Your task to perform on an android device: What's the weather going to be tomorrow? Image 0: 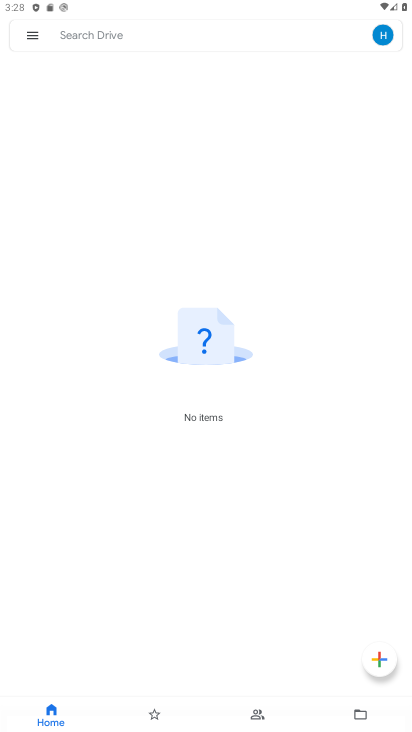
Step 0: press back button
Your task to perform on an android device: What's the weather going to be tomorrow? Image 1: 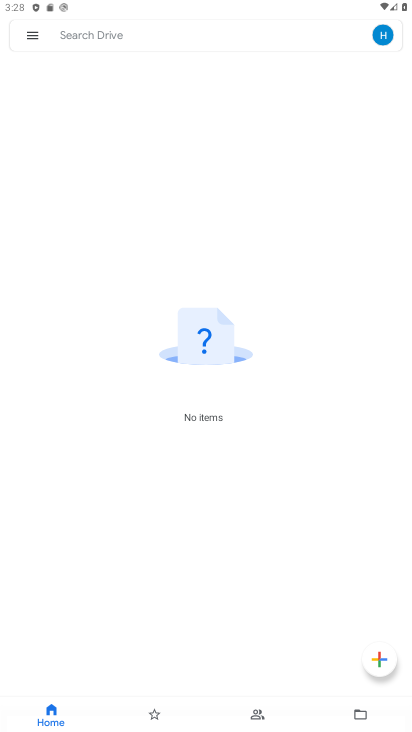
Step 1: press back button
Your task to perform on an android device: What's the weather going to be tomorrow? Image 2: 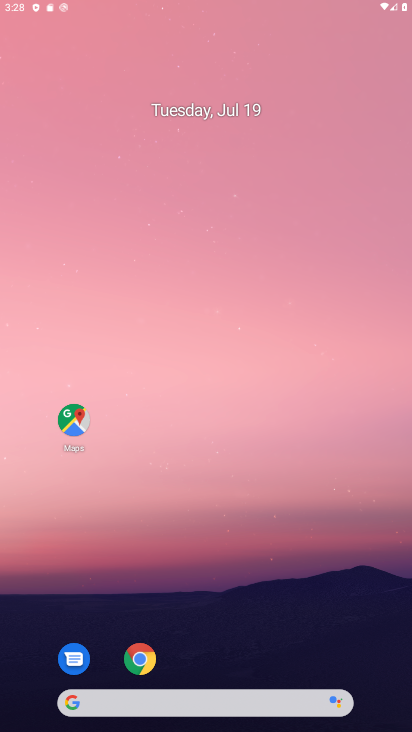
Step 2: press back button
Your task to perform on an android device: What's the weather going to be tomorrow? Image 3: 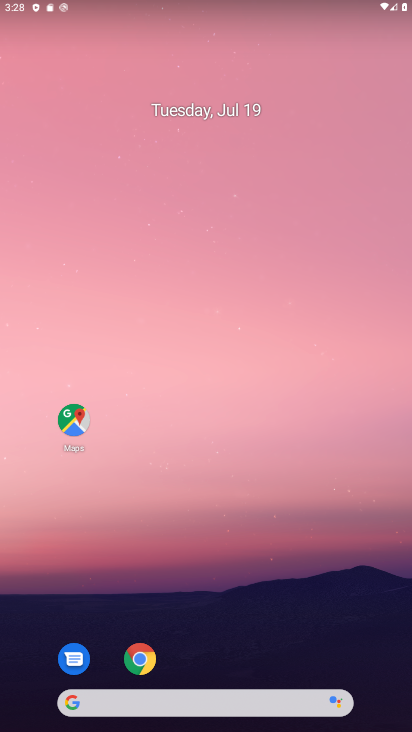
Step 3: drag from (304, 477) to (174, 118)
Your task to perform on an android device: What's the weather going to be tomorrow? Image 4: 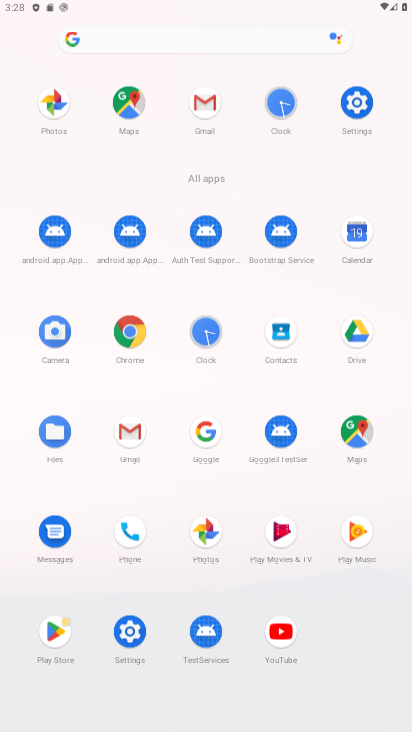
Step 4: drag from (248, 408) to (173, 162)
Your task to perform on an android device: What's the weather going to be tomorrow? Image 5: 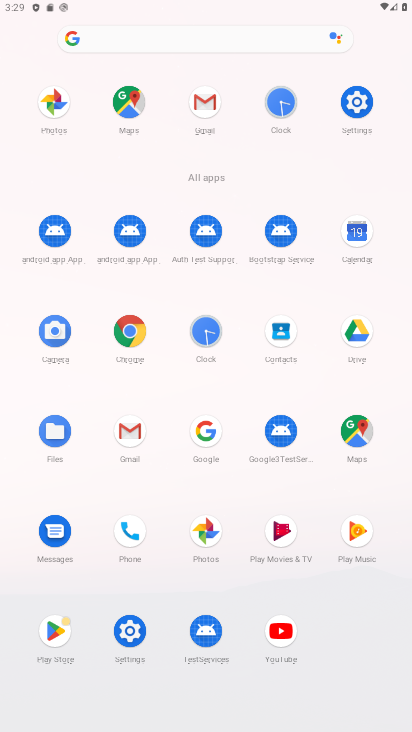
Step 5: click (125, 345)
Your task to perform on an android device: What's the weather going to be tomorrow? Image 6: 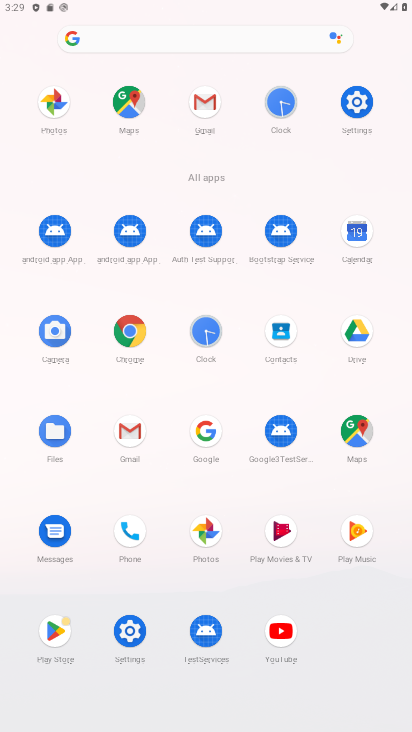
Step 6: click (126, 346)
Your task to perform on an android device: What's the weather going to be tomorrow? Image 7: 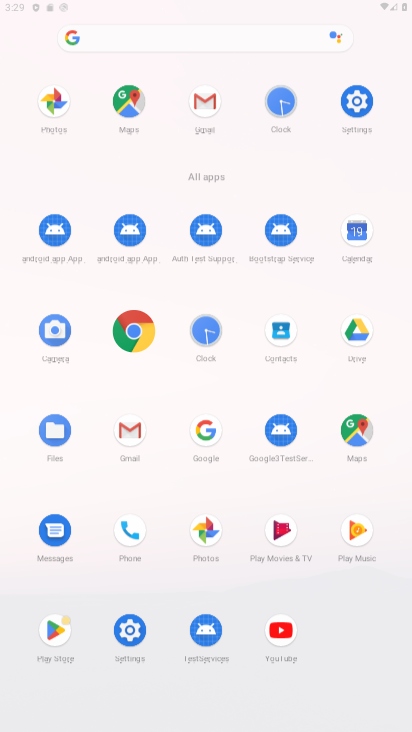
Step 7: click (133, 328)
Your task to perform on an android device: What's the weather going to be tomorrow? Image 8: 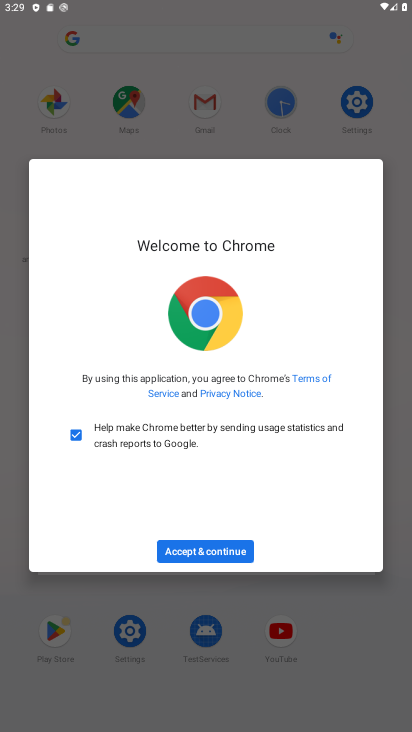
Step 8: click (180, 539)
Your task to perform on an android device: What's the weather going to be tomorrow? Image 9: 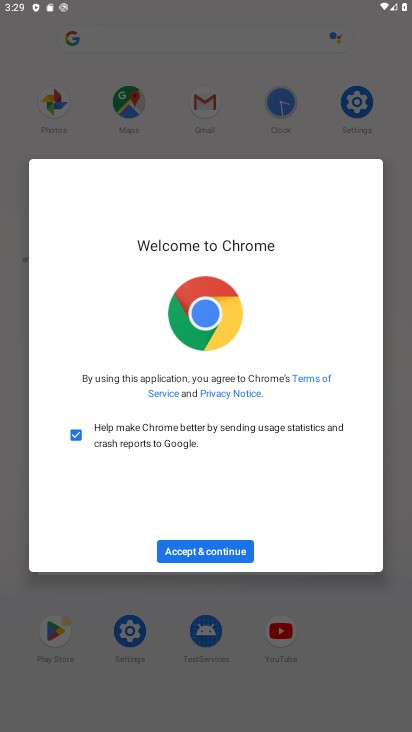
Step 9: click (212, 557)
Your task to perform on an android device: What's the weather going to be tomorrow? Image 10: 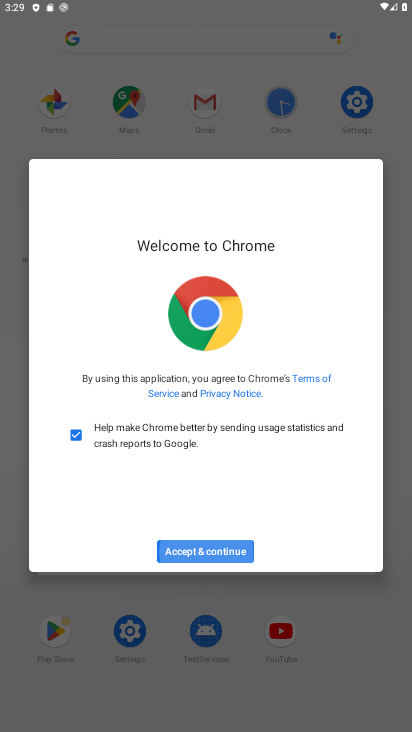
Step 10: click (212, 556)
Your task to perform on an android device: What's the weather going to be tomorrow? Image 11: 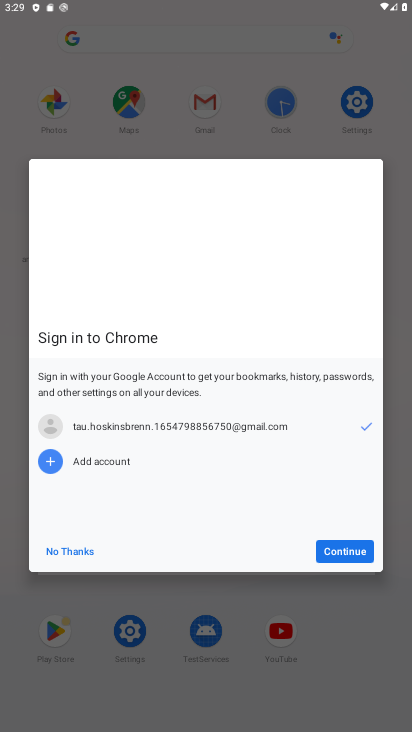
Step 11: click (215, 559)
Your task to perform on an android device: What's the weather going to be tomorrow? Image 12: 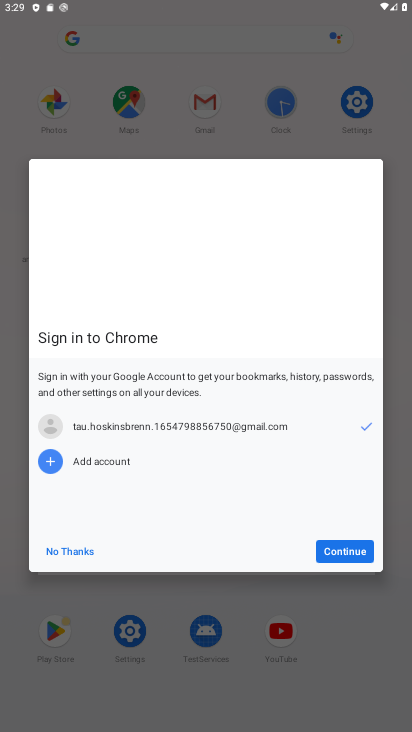
Step 12: click (215, 559)
Your task to perform on an android device: What's the weather going to be tomorrow? Image 13: 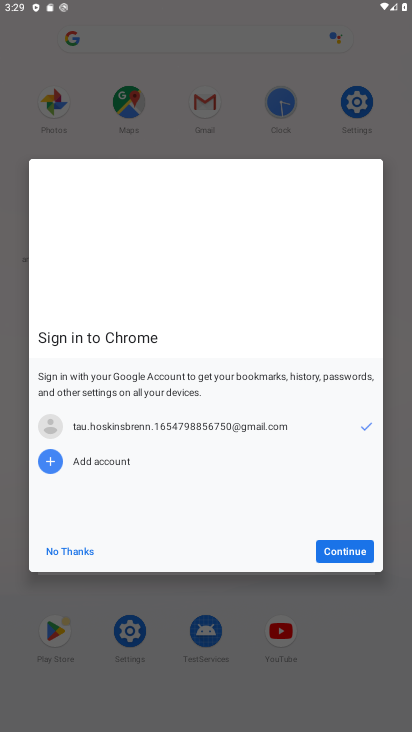
Step 13: click (215, 559)
Your task to perform on an android device: What's the weather going to be tomorrow? Image 14: 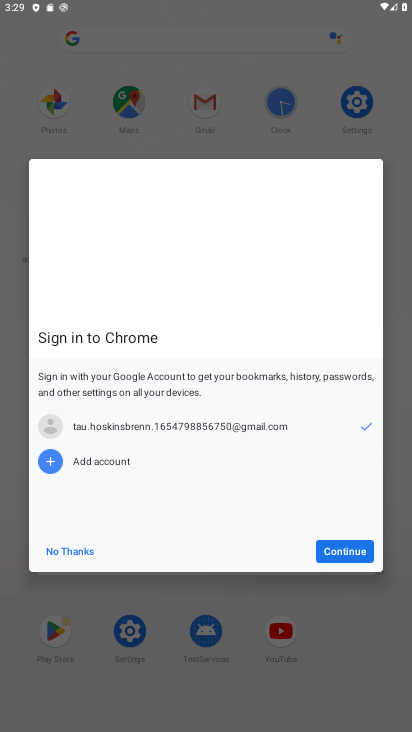
Step 14: click (348, 561)
Your task to perform on an android device: What's the weather going to be tomorrow? Image 15: 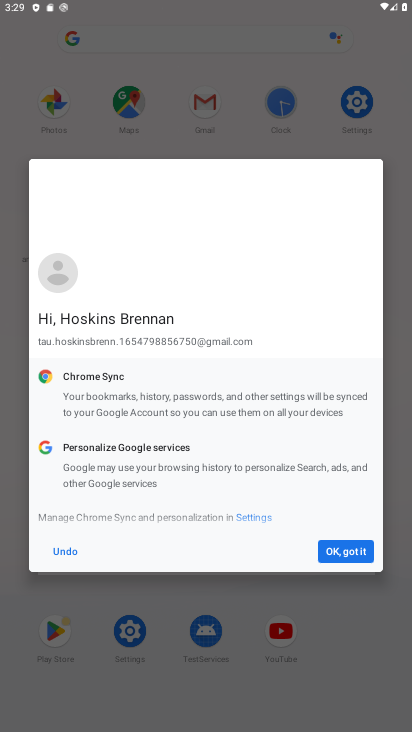
Step 15: click (352, 553)
Your task to perform on an android device: What's the weather going to be tomorrow? Image 16: 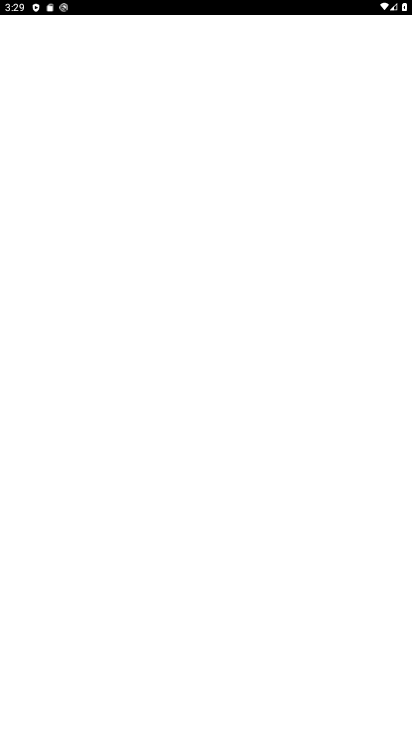
Step 16: click (347, 557)
Your task to perform on an android device: What's the weather going to be tomorrow? Image 17: 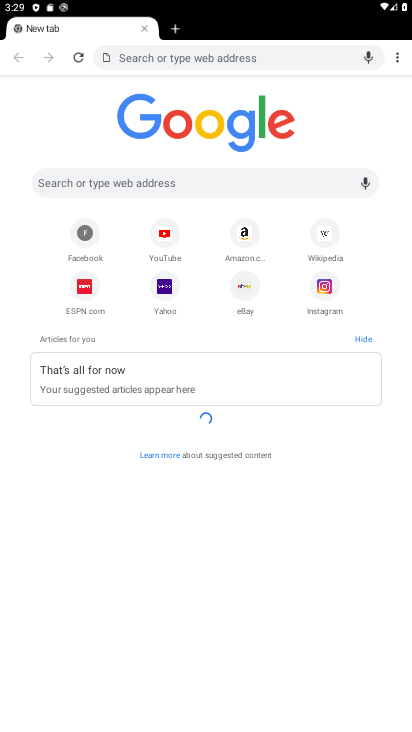
Step 17: click (80, 183)
Your task to perform on an android device: What's the weather going to be tomorrow? Image 18: 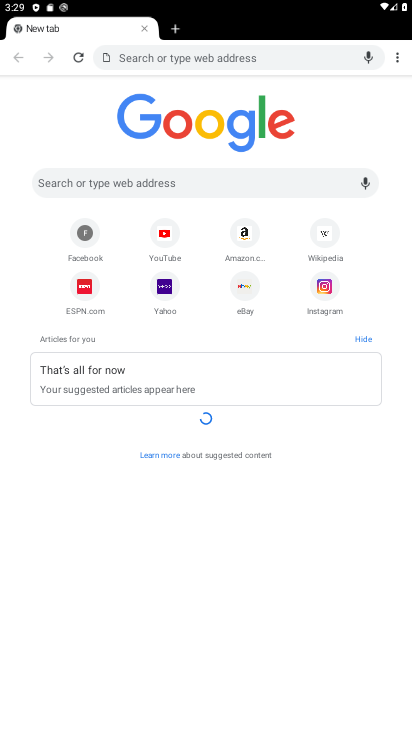
Step 18: click (84, 175)
Your task to perform on an android device: What's the weather going to be tomorrow? Image 19: 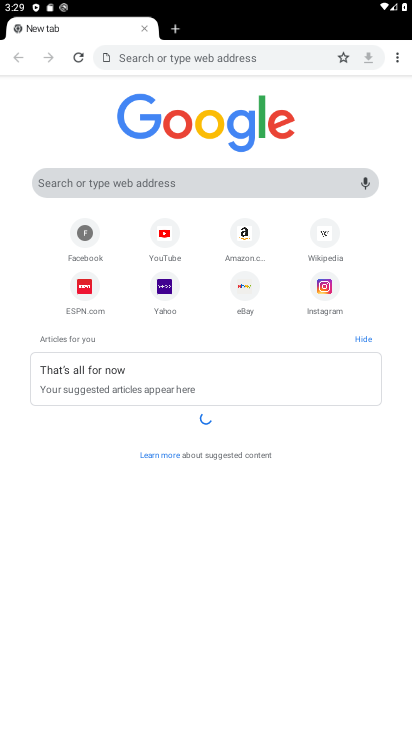
Step 19: drag from (84, 175) to (136, 207)
Your task to perform on an android device: What's the weather going to be tomorrow? Image 20: 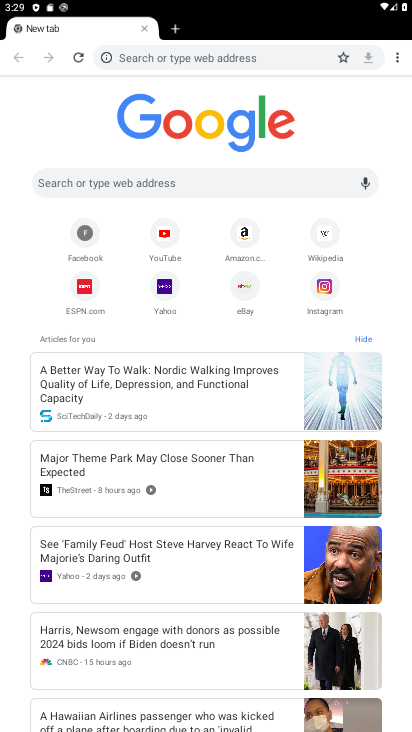
Step 20: click (95, 183)
Your task to perform on an android device: What's the weather going to be tomorrow? Image 21: 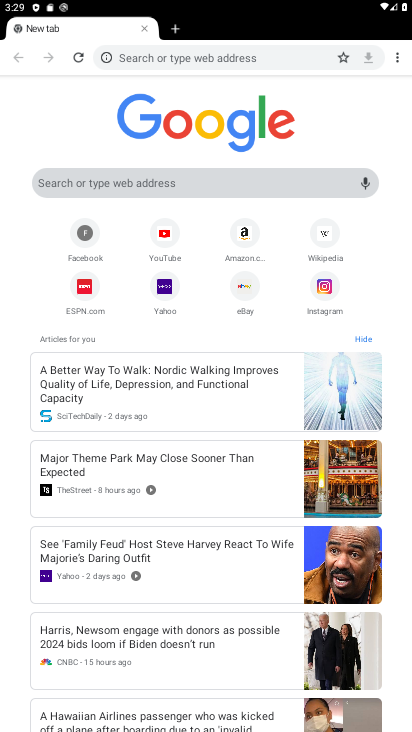
Step 21: click (95, 183)
Your task to perform on an android device: What's the weather going to be tomorrow? Image 22: 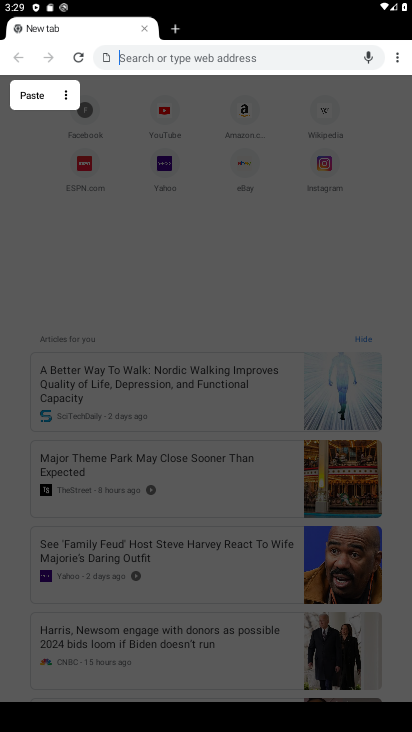
Step 22: type "weather today?"
Your task to perform on an android device: What's the weather going to be tomorrow? Image 23: 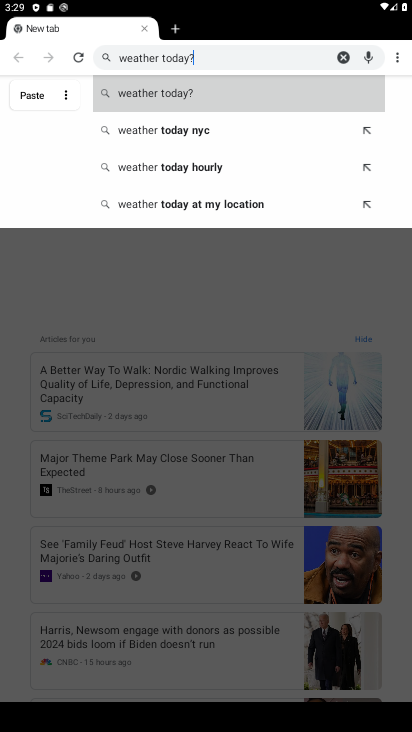
Step 23: click (161, 100)
Your task to perform on an android device: What's the weather going to be tomorrow? Image 24: 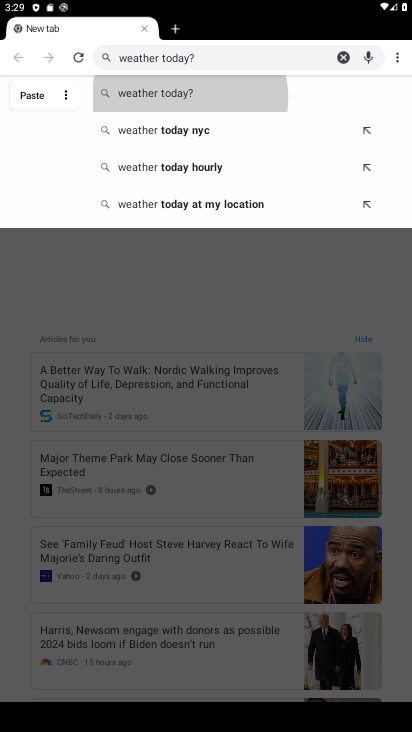
Step 24: click (163, 98)
Your task to perform on an android device: What's the weather going to be tomorrow? Image 25: 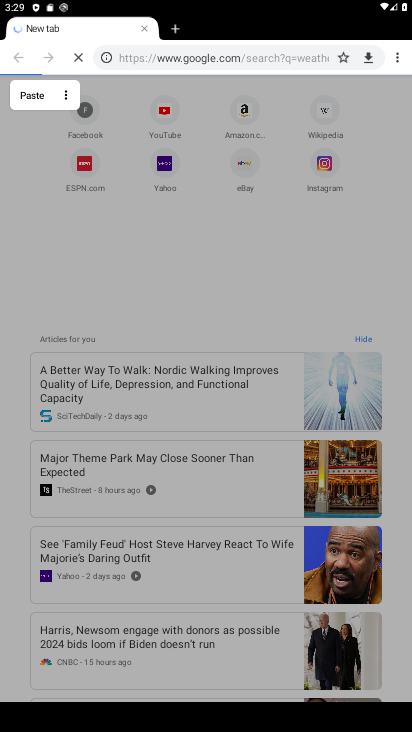
Step 25: click (172, 100)
Your task to perform on an android device: What's the weather going to be tomorrow? Image 26: 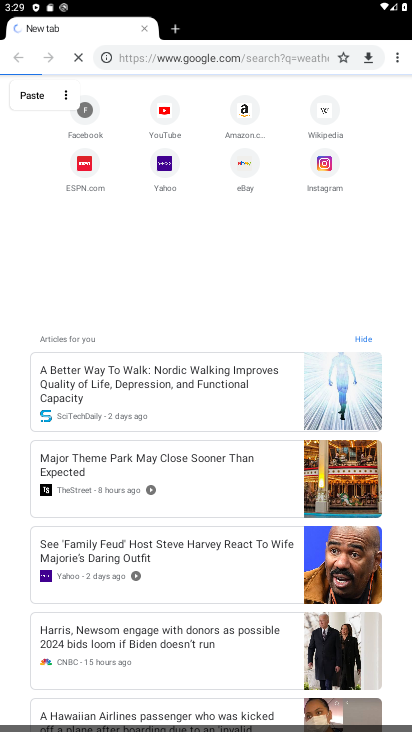
Step 26: click (179, 99)
Your task to perform on an android device: What's the weather going to be tomorrow? Image 27: 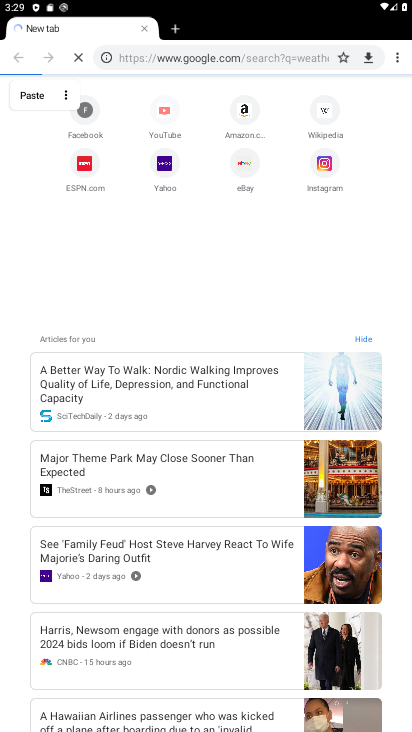
Step 27: click (180, 99)
Your task to perform on an android device: What's the weather going to be tomorrow? Image 28: 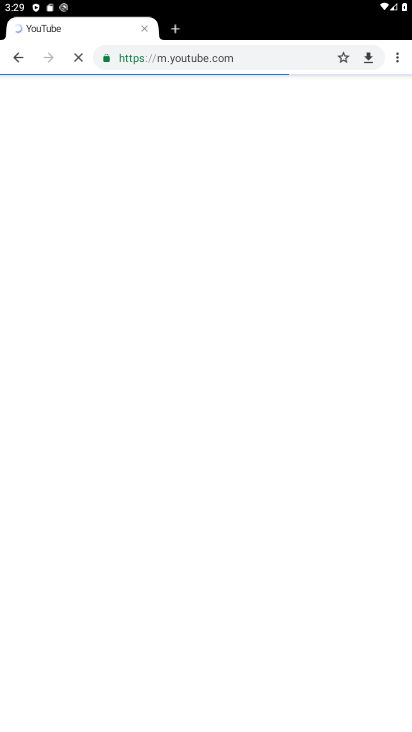
Step 28: task complete